Your task to perform on an android device: Open settings on Google Maps Image 0: 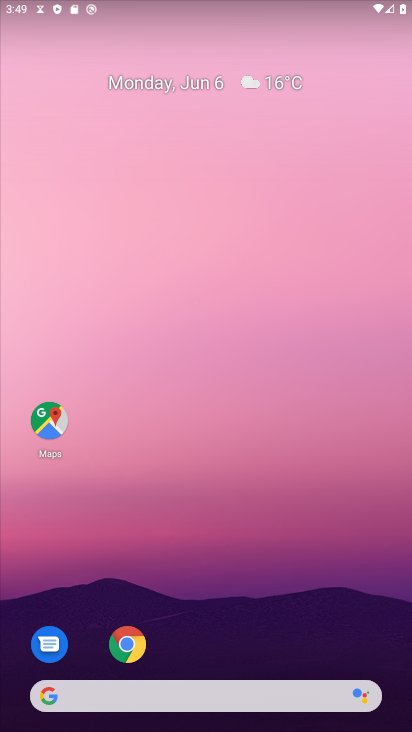
Step 0: click (48, 432)
Your task to perform on an android device: Open settings on Google Maps Image 1: 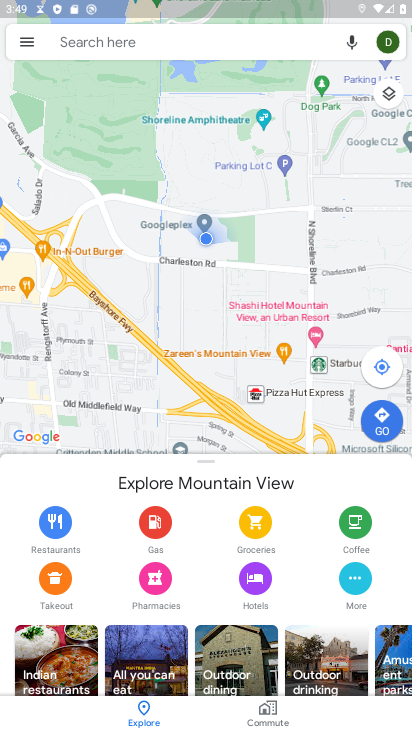
Step 1: click (26, 43)
Your task to perform on an android device: Open settings on Google Maps Image 2: 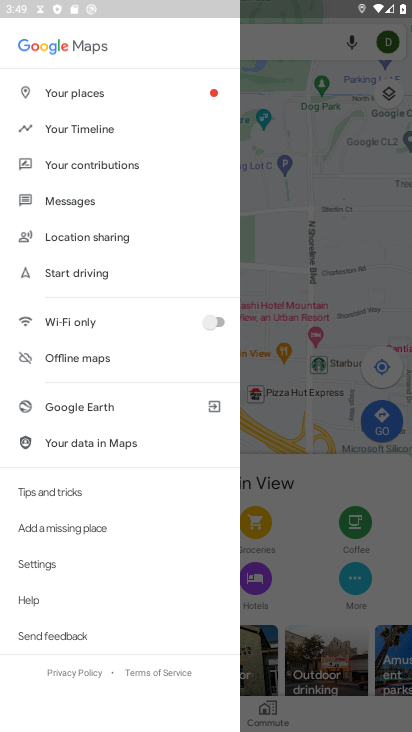
Step 2: click (27, 570)
Your task to perform on an android device: Open settings on Google Maps Image 3: 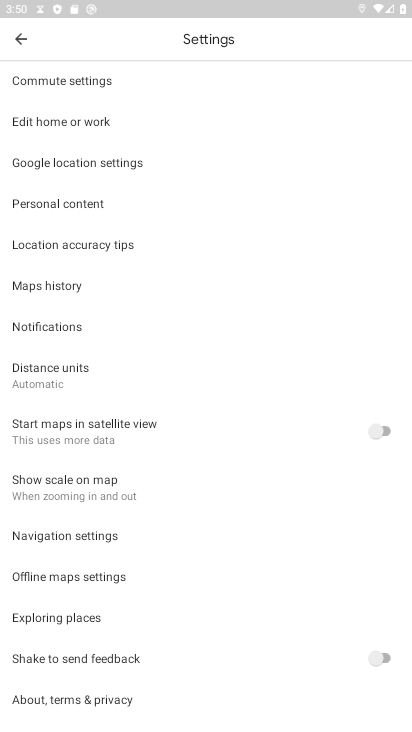
Step 3: task complete